Your task to perform on an android device: turn off wifi Image 0: 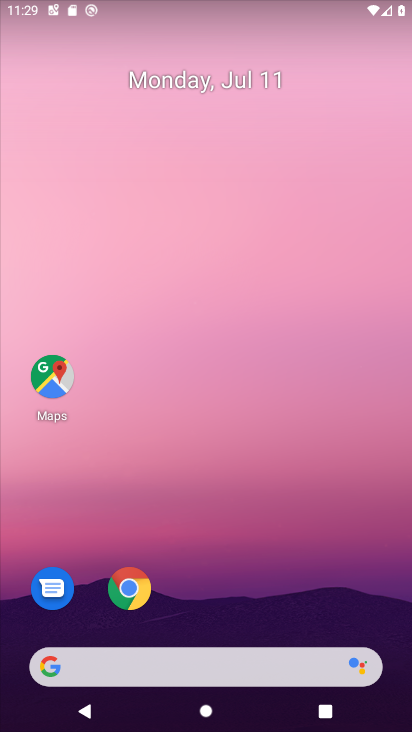
Step 0: drag from (288, 708) to (192, 194)
Your task to perform on an android device: turn off wifi Image 1: 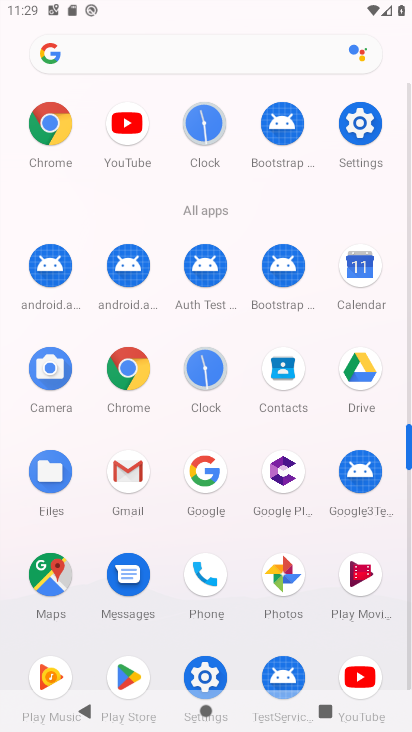
Step 1: click (355, 126)
Your task to perform on an android device: turn off wifi Image 2: 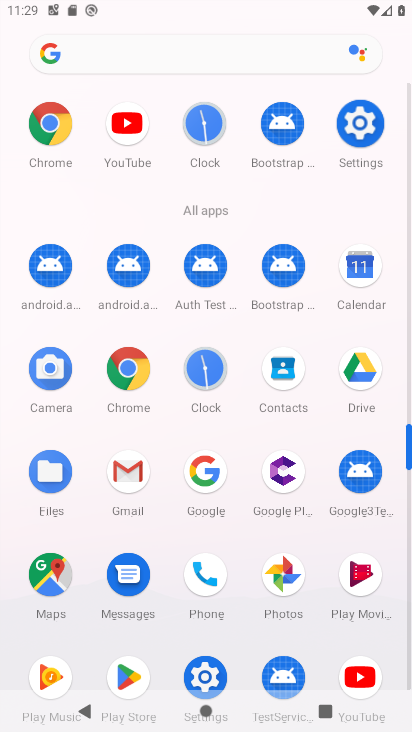
Step 2: click (355, 125)
Your task to perform on an android device: turn off wifi Image 3: 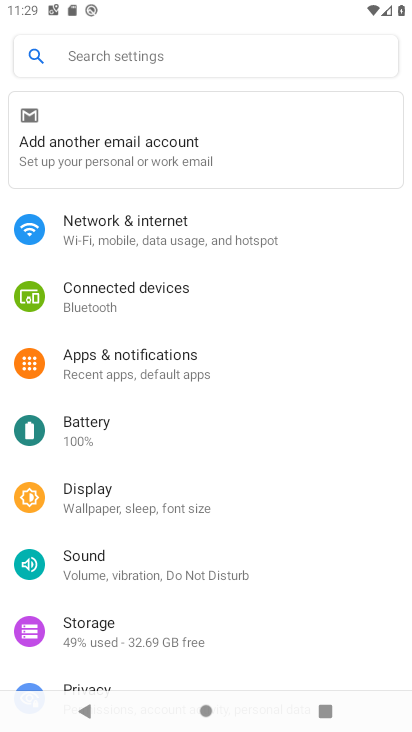
Step 3: click (140, 233)
Your task to perform on an android device: turn off wifi Image 4: 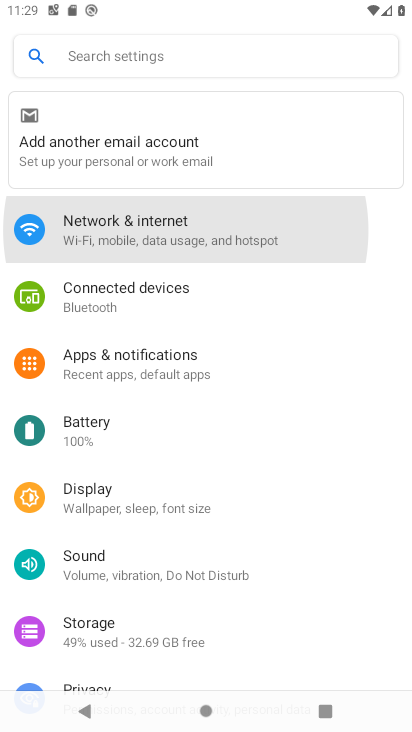
Step 4: click (141, 233)
Your task to perform on an android device: turn off wifi Image 5: 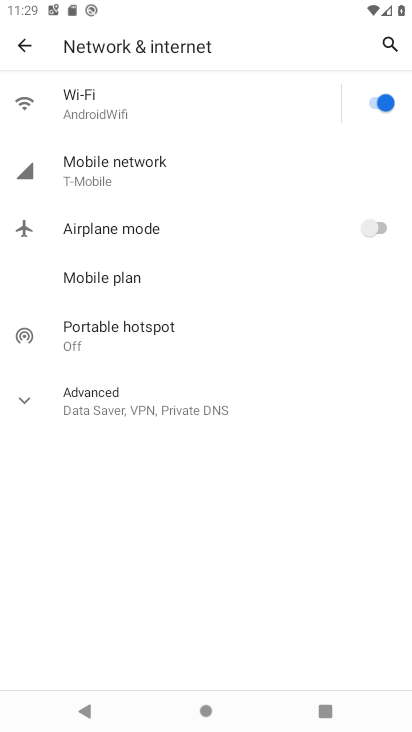
Step 5: task complete